Your task to perform on an android device: check data usage Image 0: 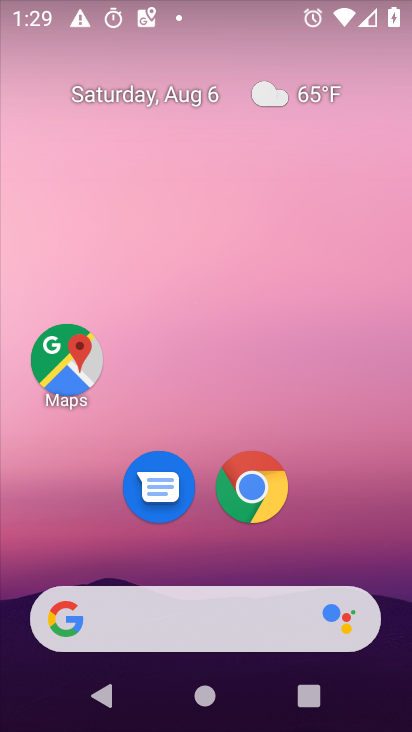
Step 0: drag from (223, 556) to (221, 68)
Your task to perform on an android device: check data usage Image 1: 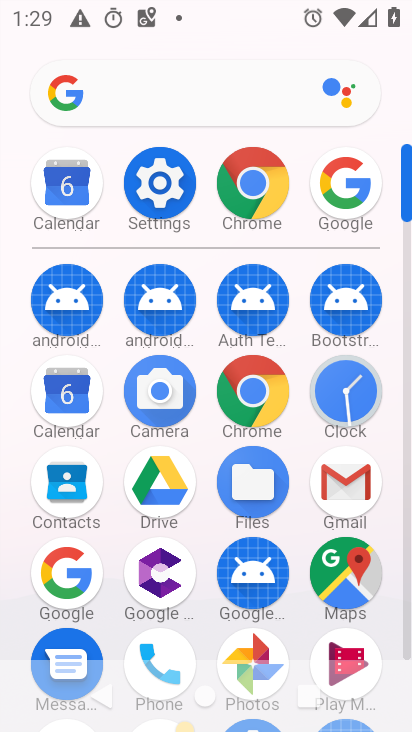
Step 1: click (131, 186)
Your task to perform on an android device: check data usage Image 2: 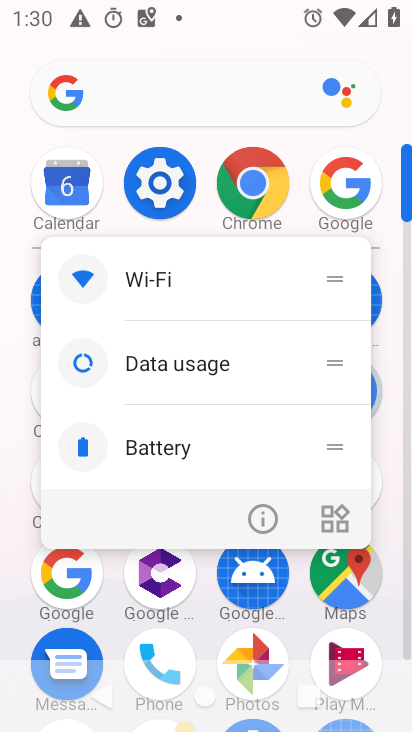
Step 2: click (148, 180)
Your task to perform on an android device: check data usage Image 3: 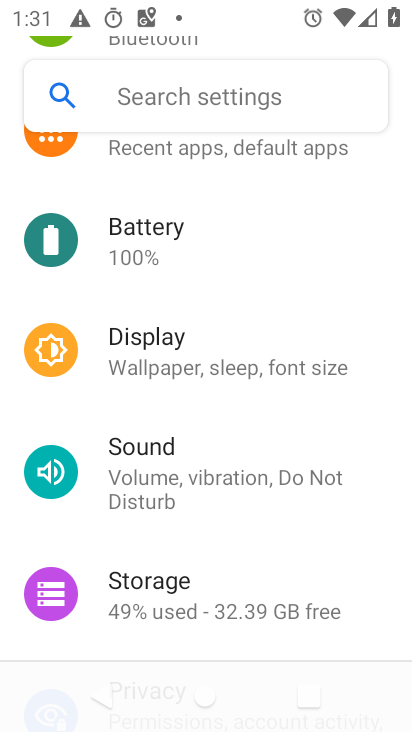
Step 3: drag from (190, 213) to (188, 680)
Your task to perform on an android device: check data usage Image 4: 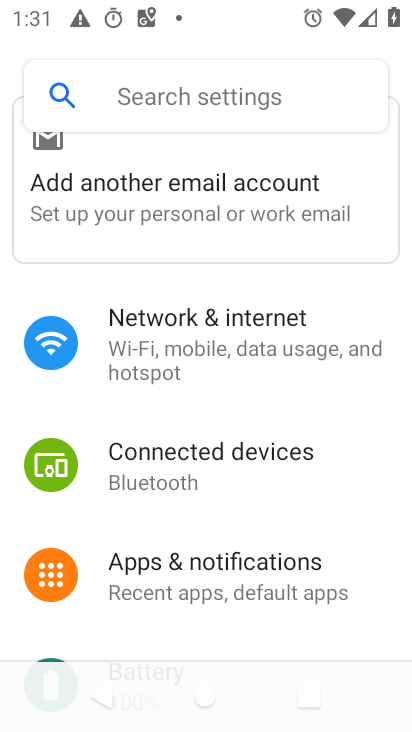
Step 4: click (233, 346)
Your task to perform on an android device: check data usage Image 5: 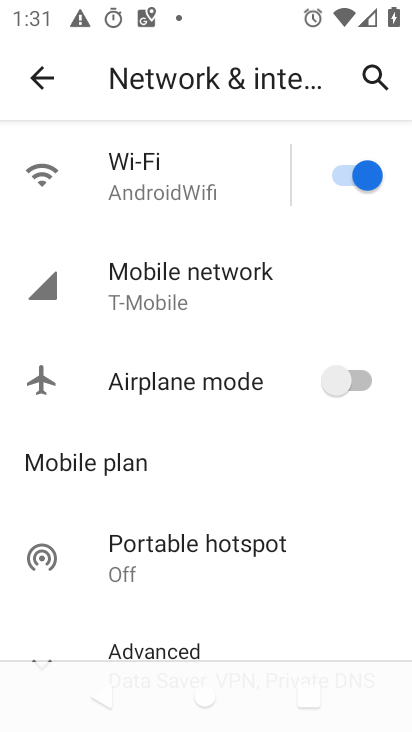
Step 5: click (197, 304)
Your task to perform on an android device: check data usage Image 6: 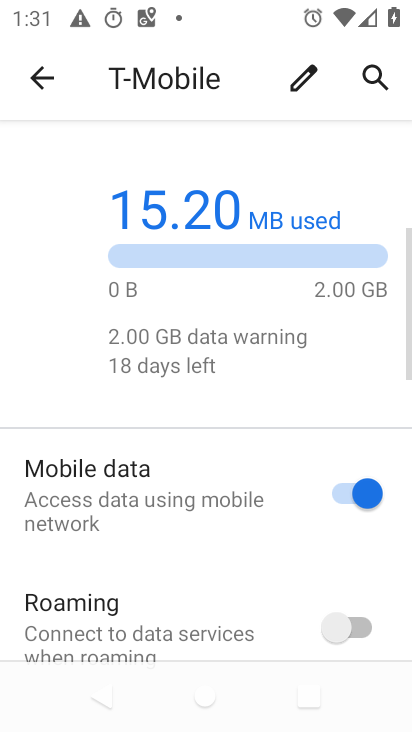
Step 6: drag from (172, 570) to (240, 51)
Your task to perform on an android device: check data usage Image 7: 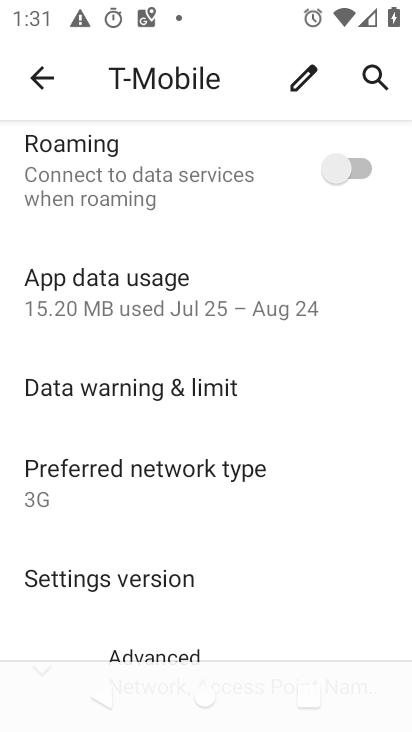
Step 7: click (75, 286)
Your task to perform on an android device: check data usage Image 8: 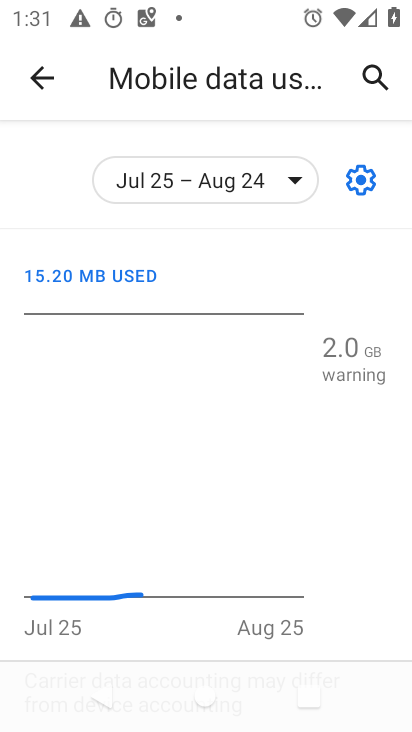
Step 8: task complete